Your task to perform on an android device: allow cookies in the chrome app Image 0: 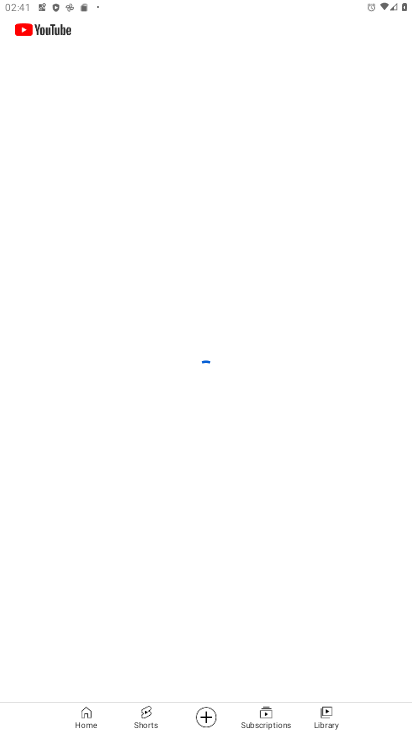
Step 0: press home button
Your task to perform on an android device: allow cookies in the chrome app Image 1: 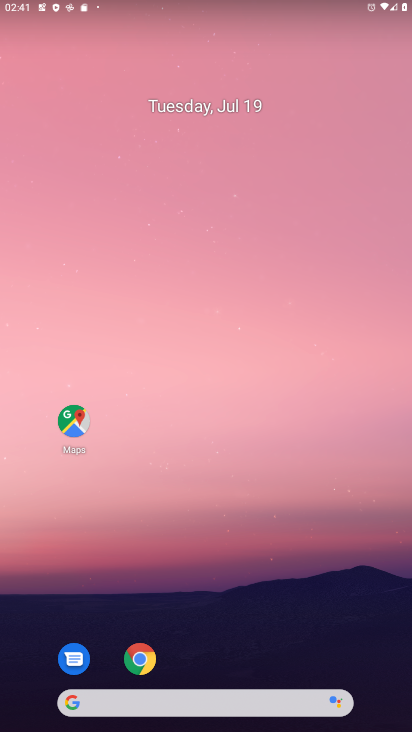
Step 1: click (278, 215)
Your task to perform on an android device: allow cookies in the chrome app Image 2: 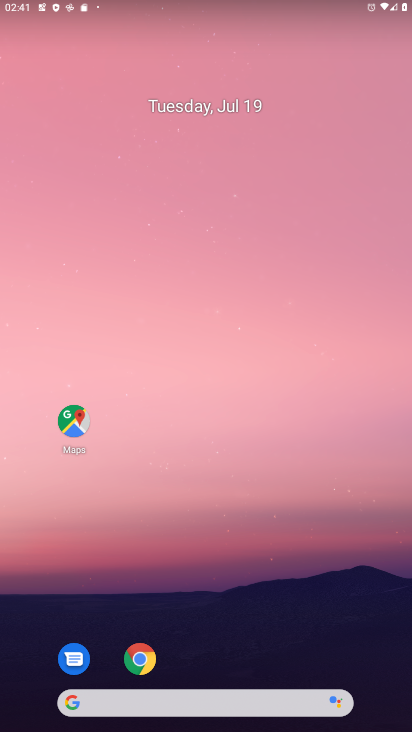
Step 2: drag from (278, 520) to (226, 7)
Your task to perform on an android device: allow cookies in the chrome app Image 3: 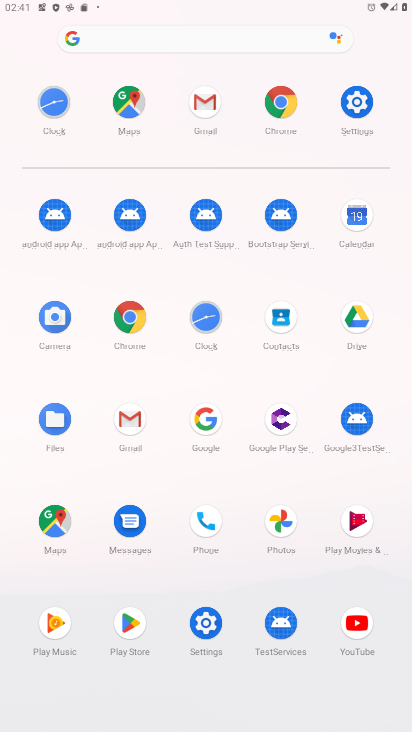
Step 3: click (125, 333)
Your task to perform on an android device: allow cookies in the chrome app Image 4: 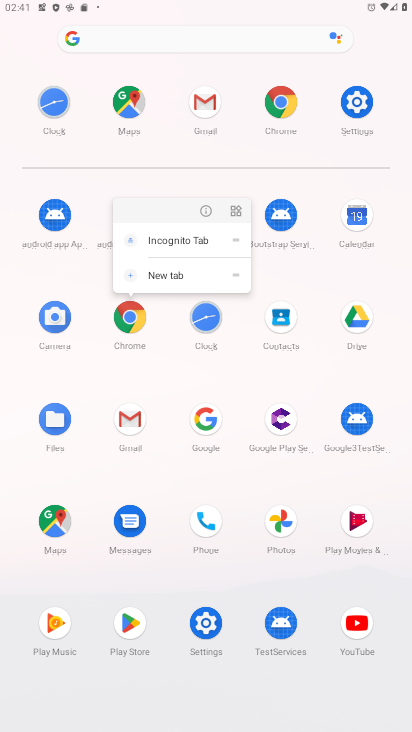
Step 4: click (125, 333)
Your task to perform on an android device: allow cookies in the chrome app Image 5: 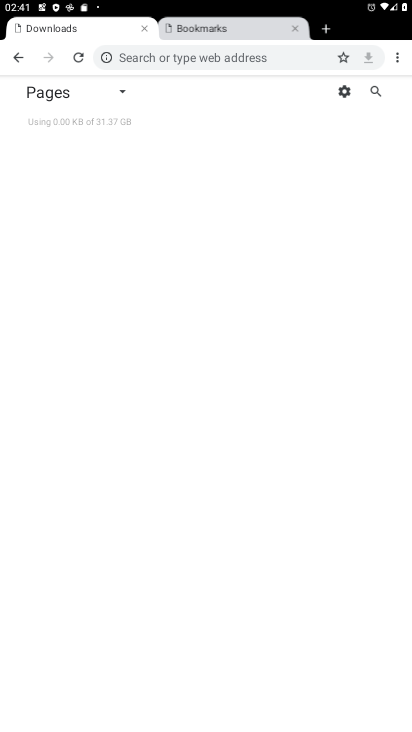
Step 5: drag from (399, 52) to (267, 296)
Your task to perform on an android device: allow cookies in the chrome app Image 6: 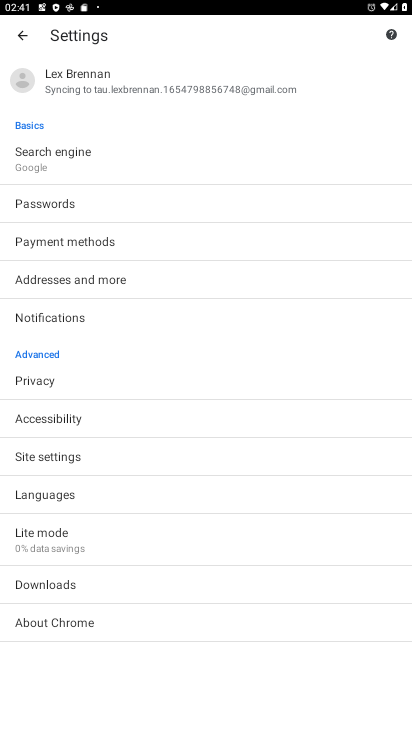
Step 6: click (60, 447)
Your task to perform on an android device: allow cookies in the chrome app Image 7: 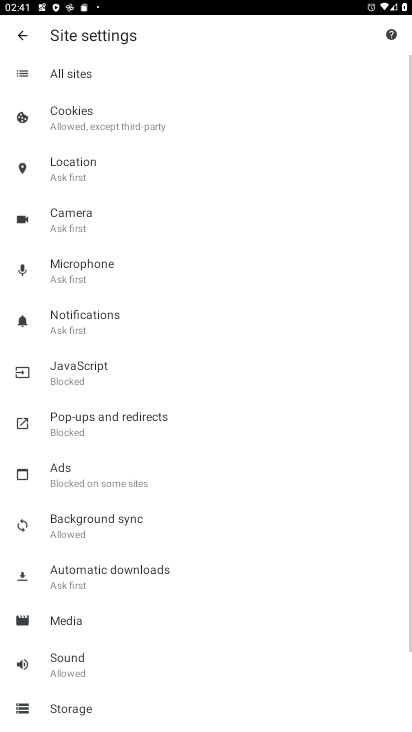
Step 7: click (90, 130)
Your task to perform on an android device: allow cookies in the chrome app Image 8: 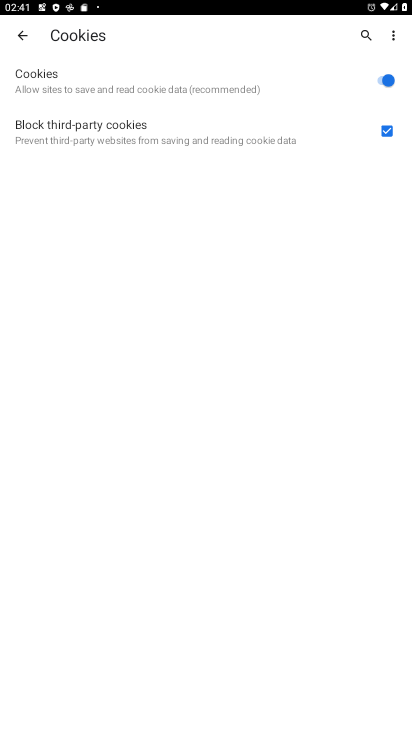
Step 8: task complete